Your task to perform on an android device: toggle sleep mode Image 0: 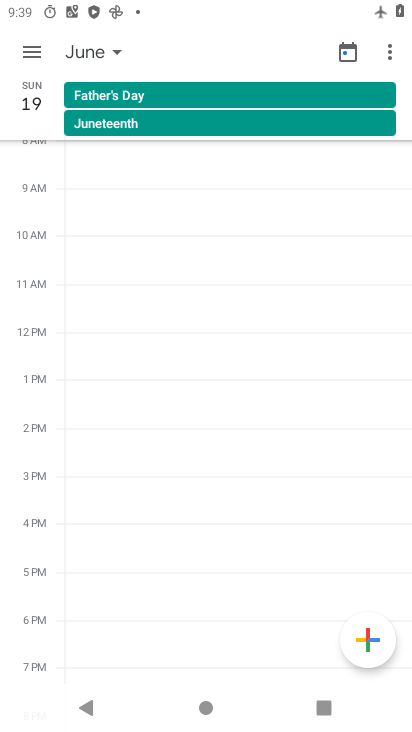
Step 0: press home button
Your task to perform on an android device: toggle sleep mode Image 1: 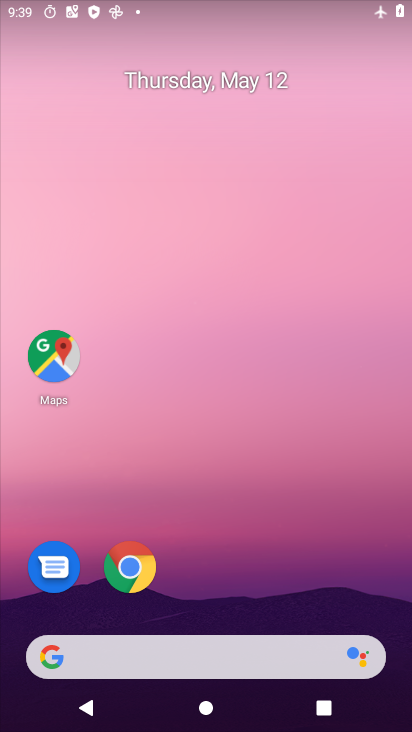
Step 1: drag from (246, 630) to (256, 187)
Your task to perform on an android device: toggle sleep mode Image 2: 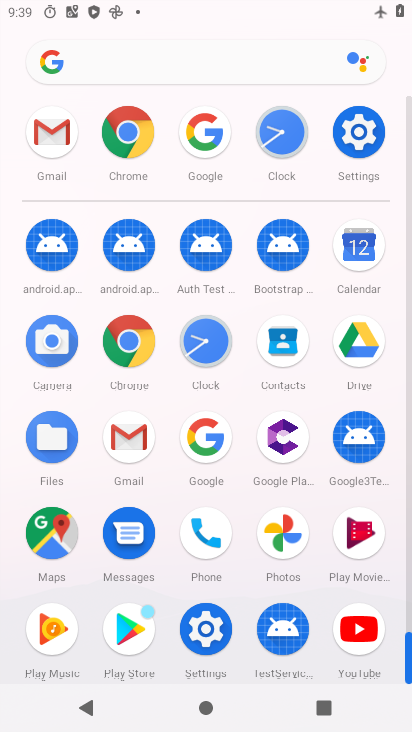
Step 2: click (374, 155)
Your task to perform on an android device: toggle sleep mode Image 3: 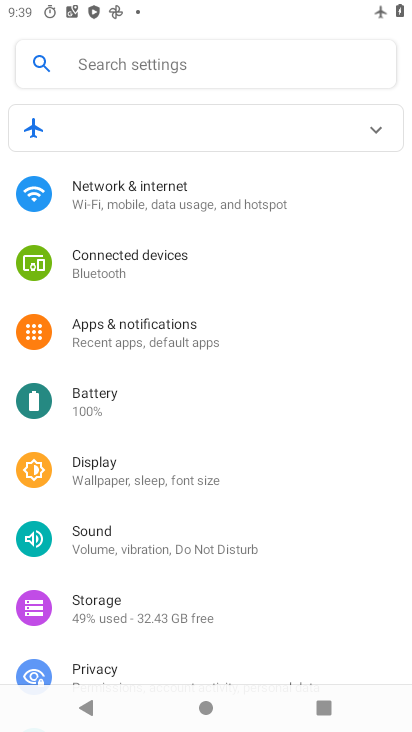
Step 3: click (163, 483)
Your task to perform on an android device: toggle sleep mode Image 4: 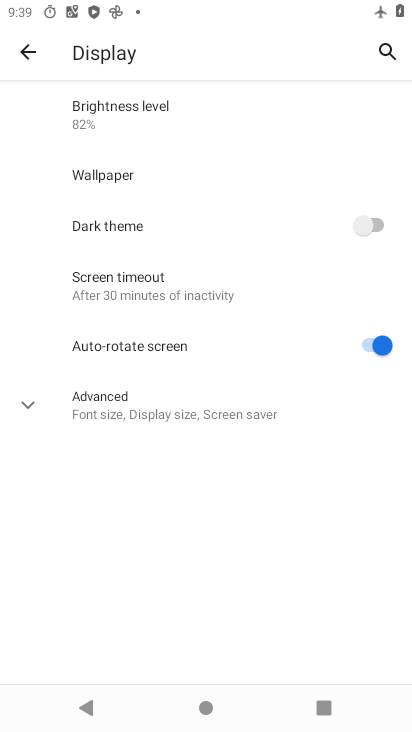
Step 4: click (183, 423)
Your task to perform on an android device: toggle sleep mode Image 5: 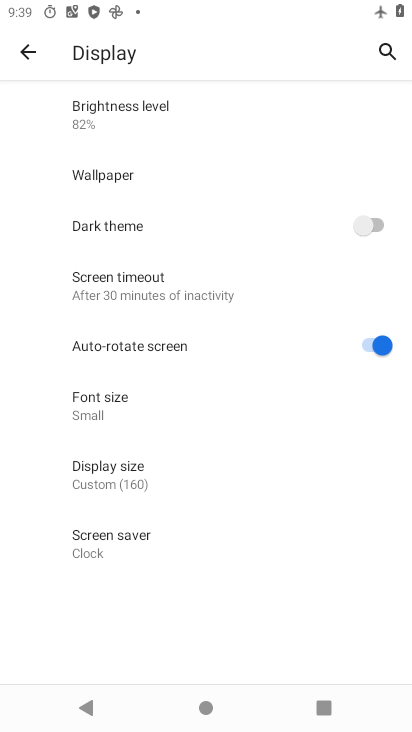
Step 5: task complete